Your task to perform on an android device: Open Amazon Image 0: 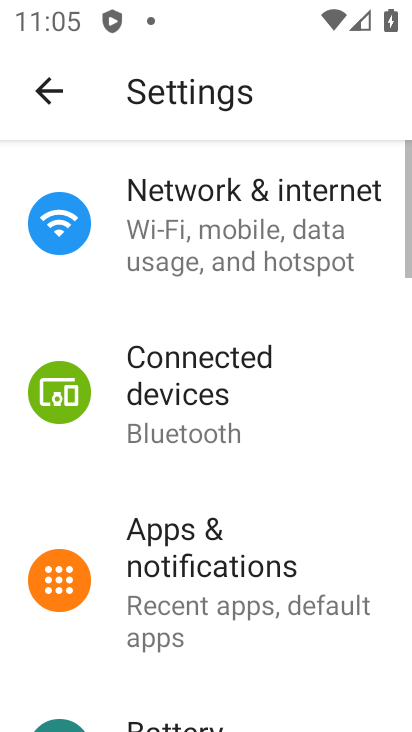
Step 0: press home button
Your task to perform on an android device: Open Amazon Image 1: 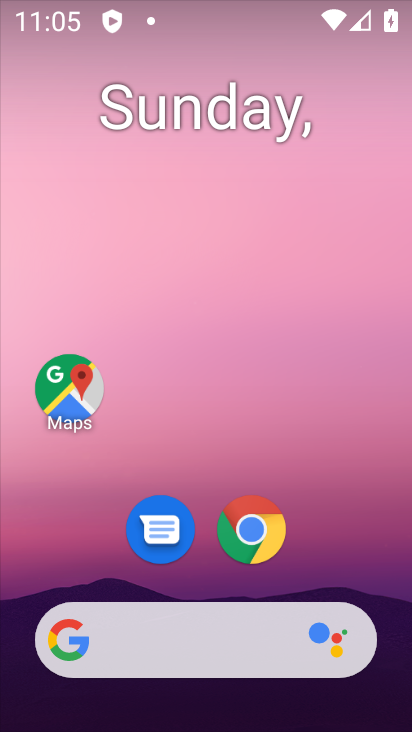
Step 1: drag from (382, 697) to (210, 95)
Your task to perform on an android device: Open Amazon Image 2: 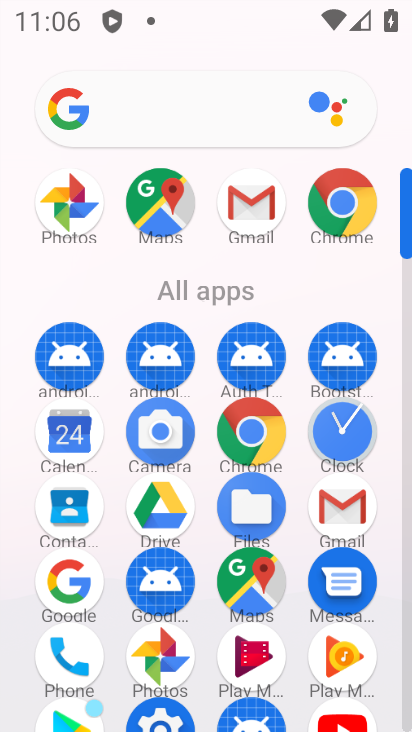
Step 2: click (344, 191)
Your task to perform on an android device: Open Amazon Image 3: 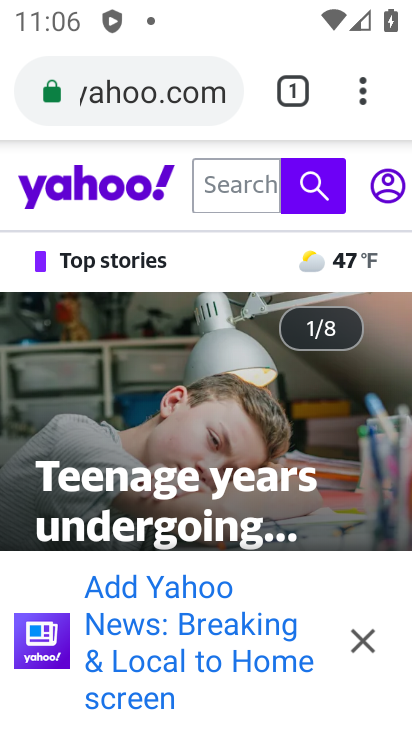
Step 3: press back button
Your task to perform on an android device: Open Amazon Image 4: 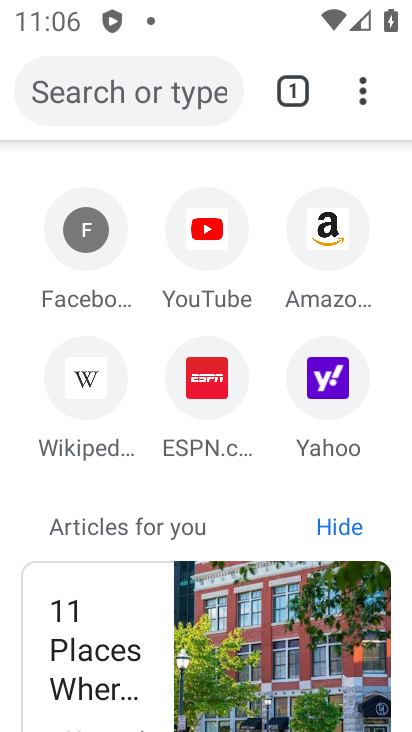
Step 4: click (313, 221)
Your task to perform on an android device: Open Amazon Image 5: 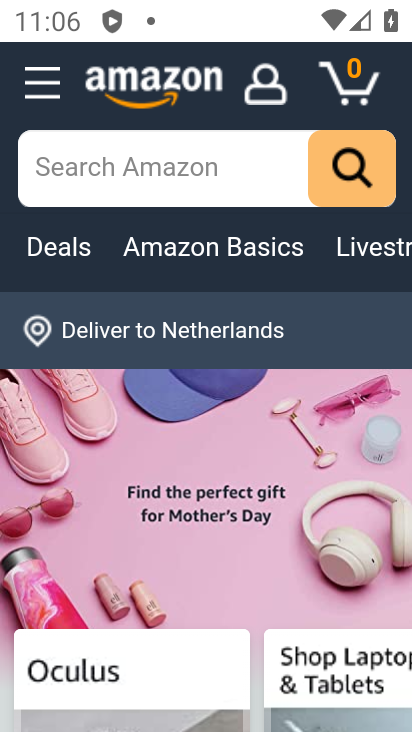
Step 5: task complete